Your task to perform on an android device: Go to Maps Image 0: 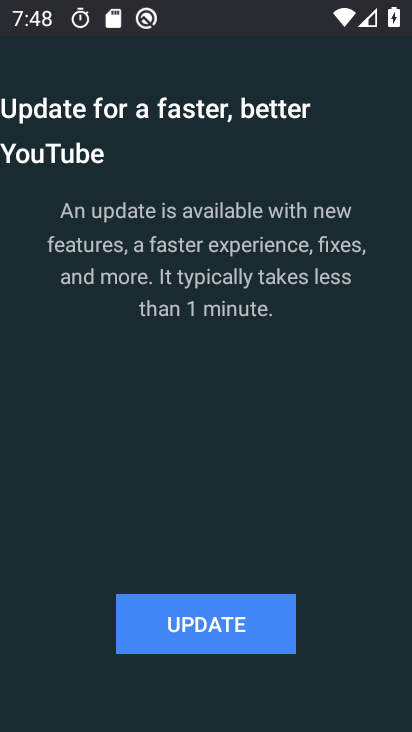
Step 0: press home button
Your task to perform on an android device: Go to Maps Image 1: 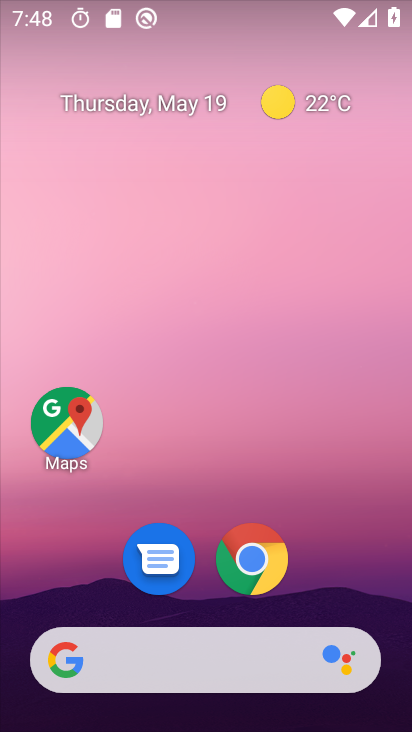
Step 1: drag from (202, 583) to (282, 48)
Your task to perform on an android device: Go to Maps Image 2: 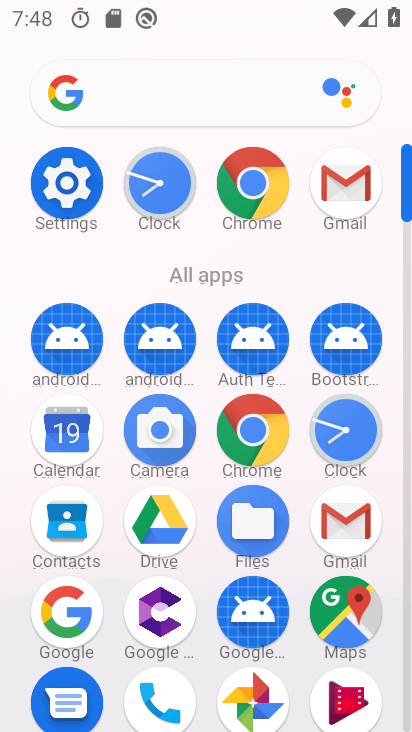
Step 2: click (337, 613)
Your task to perform on an android device: Go to Maps Image 3: 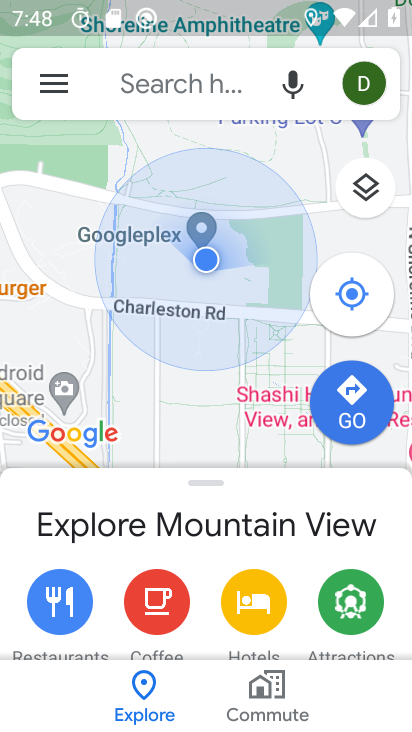
Step 3: task complete